Your task to perform on an android device: What's a good restaurant in San Jose? Image 0: 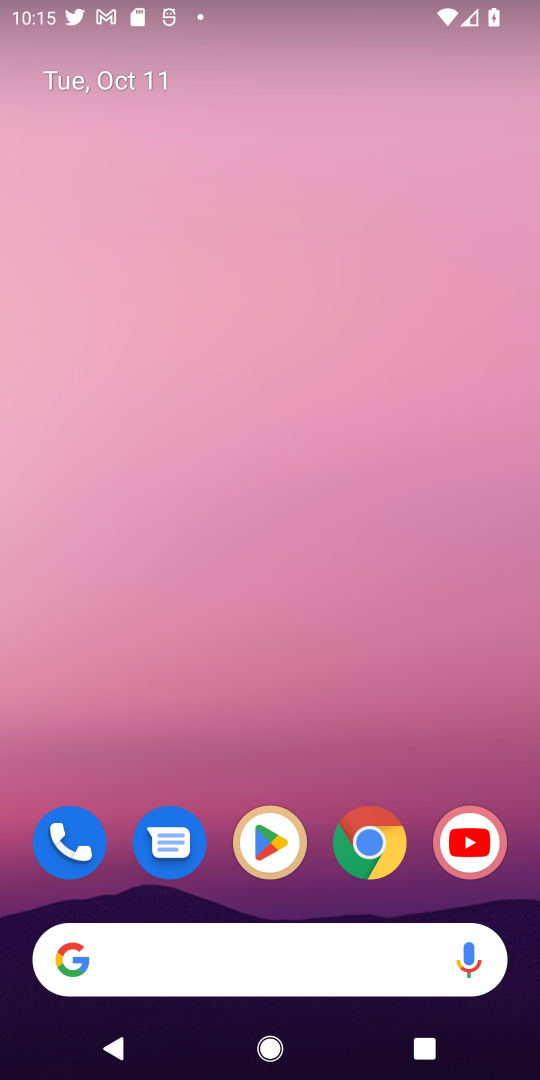
Step 0: click (361, 840)
Your task to perform on an android device: What's a good restaurant in San Jose? Image 1: 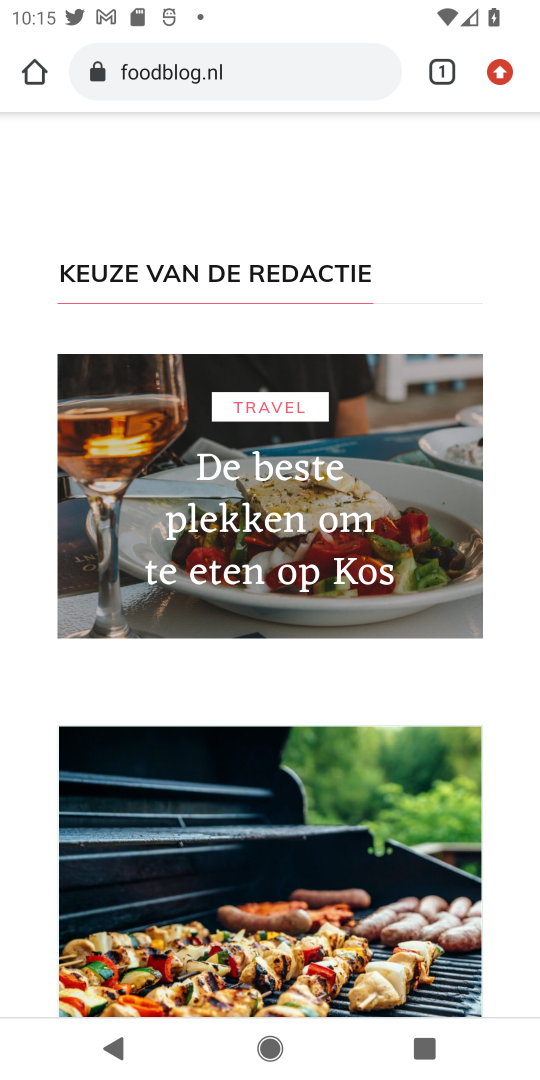
Step 1: click (223, 63)
Your task to perform on an android device: What's a good restaurant in San Jose? Image 2: 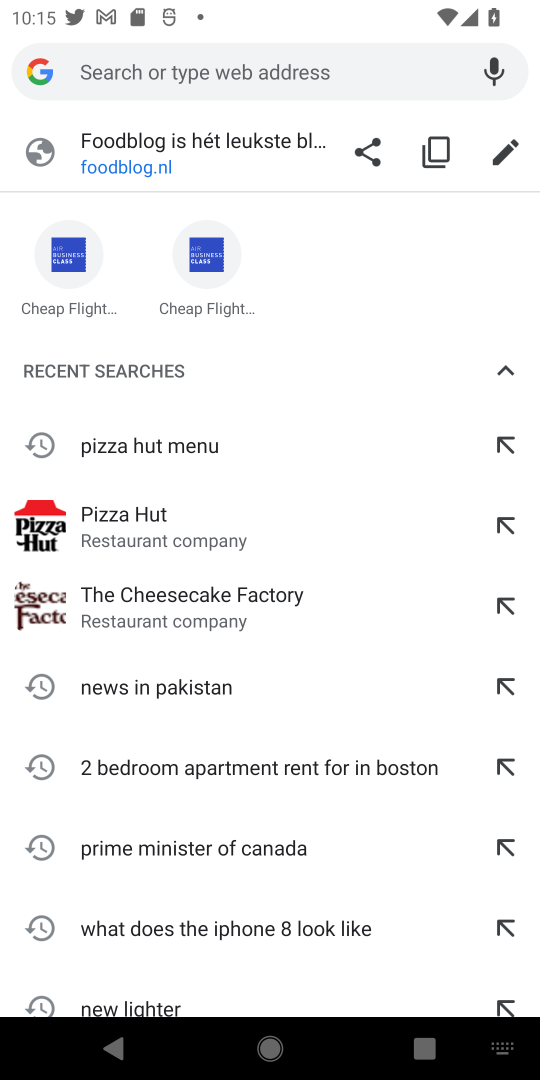
Step 2: type "good resturant in san kose"
Your task to perform on an android device: What's a good restaurant in San Jose? Image 3: 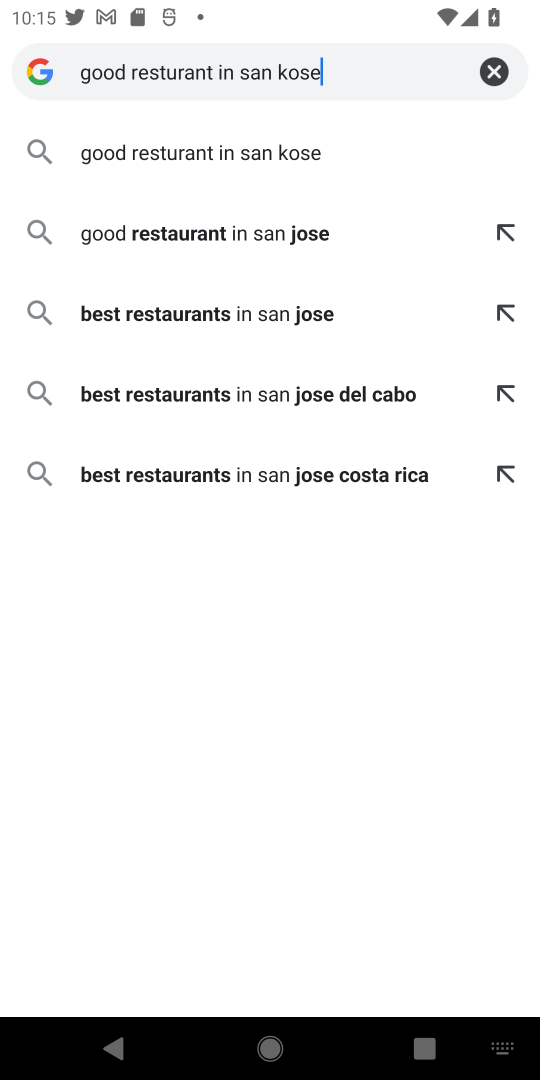
Step 3: click (272, 231)
Your task to perform on an android device: What's a good restaurant in San Jose? Image 4: 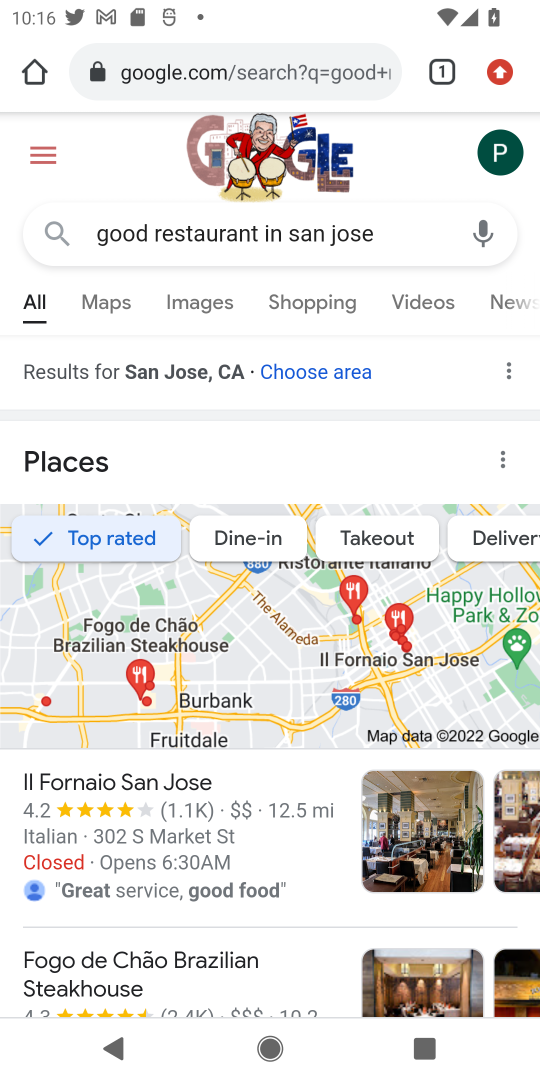
Step 4: drag from (211, 755) to (360, 205)
Your task to perform on an android device: What's a good restaurant in San Jose? Image 5: 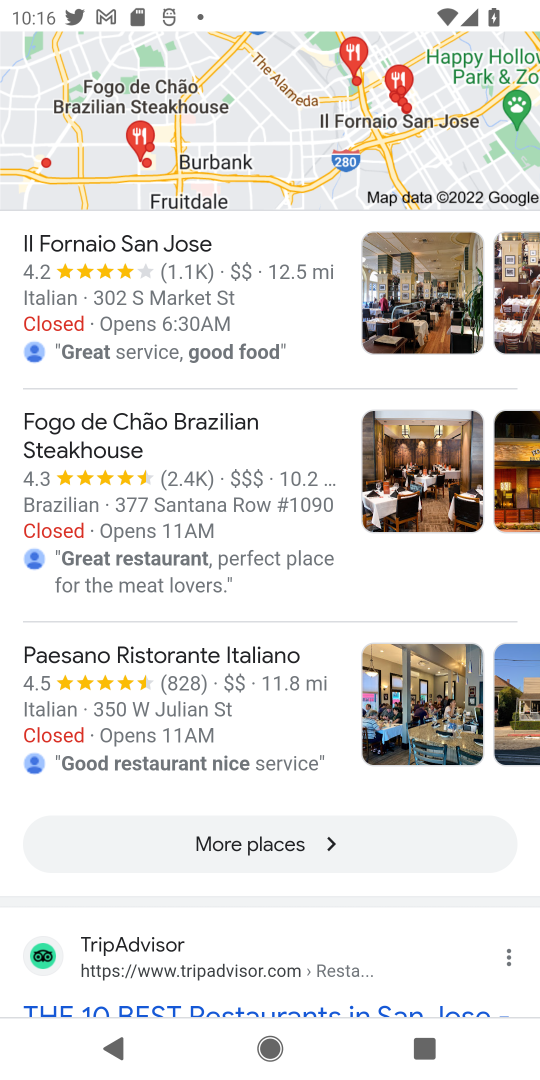
Step 5: drag from (194, 410) to (216, 818)
Your task to perform on an android device: What's a good restaurant in San Jose? Image 6: 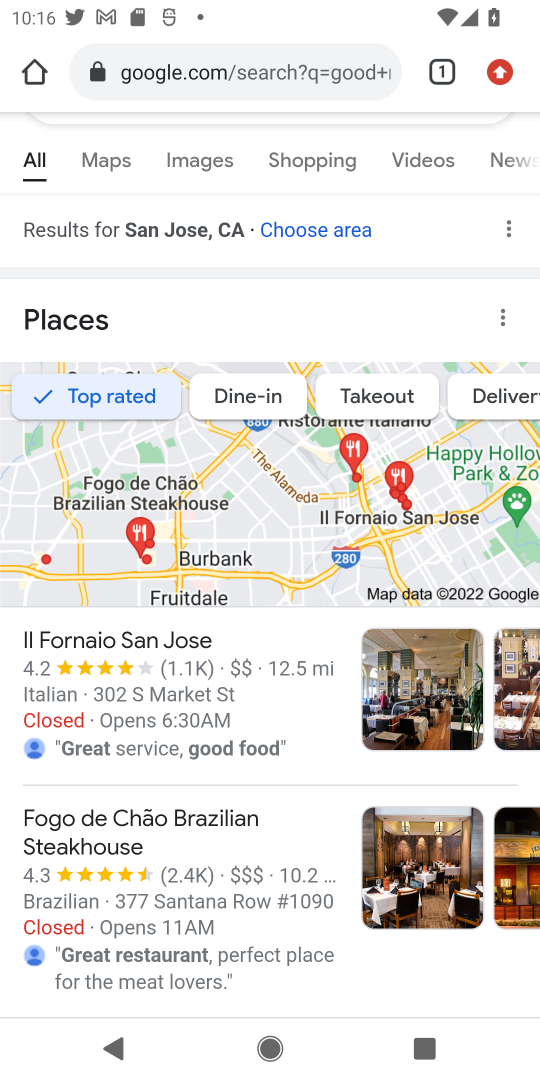
Step 6: click (76, 639)
Your task to perform on an android device: What's a good restaurant in San Jose? Image 7: 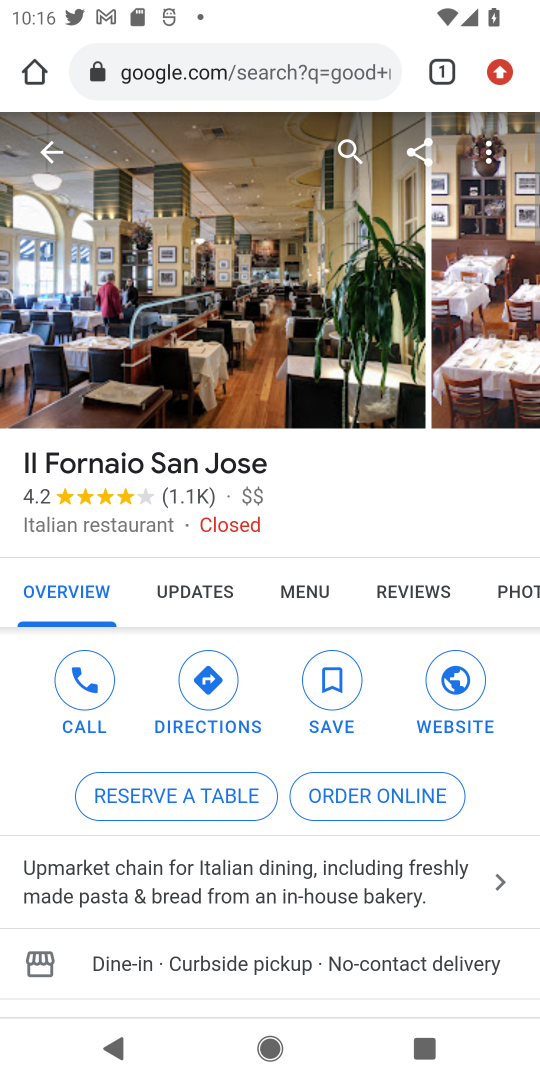
Step 7: task complete